Your task to perform on an android device: stop showing notifications on the lock screen Image 0: 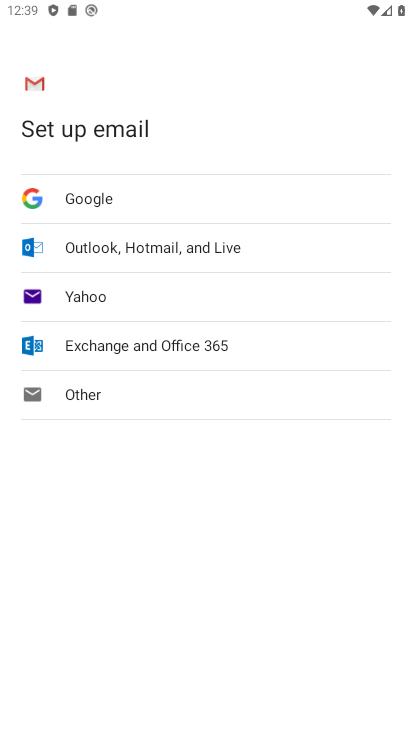
Step 0: press home button
Your task to perform on an android device: stop showing notifications on the lock screen Image 1: 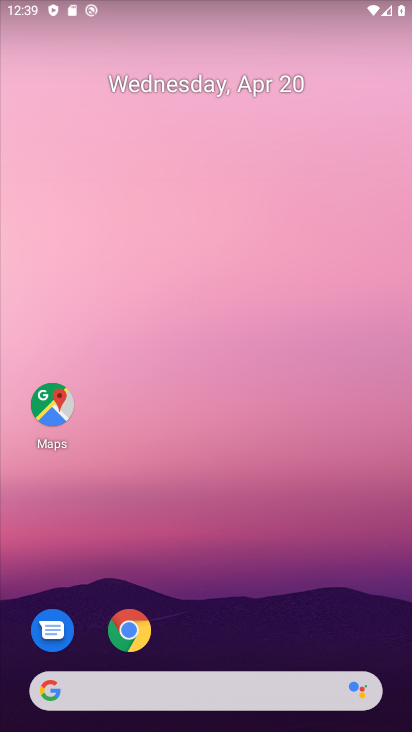
Step 1: drag from (362, 625) to (393, 236)
Your task to perform on an android device: stop showing notifications on the lock screen Image 2: 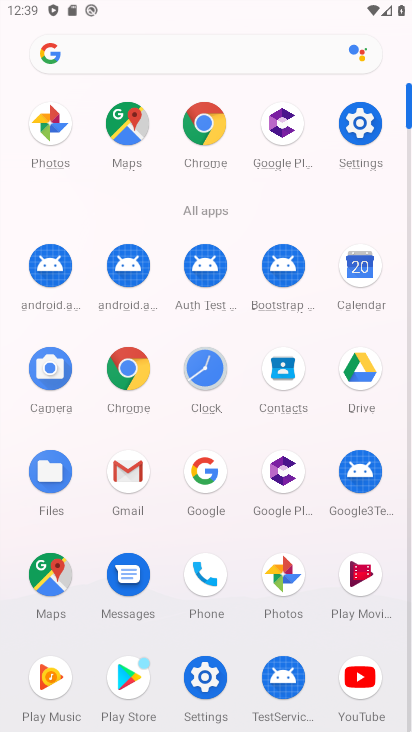
Step 2: click (378, 128)
Your task to perform on an android device: stop showing notifications on the lock screen Image 3: 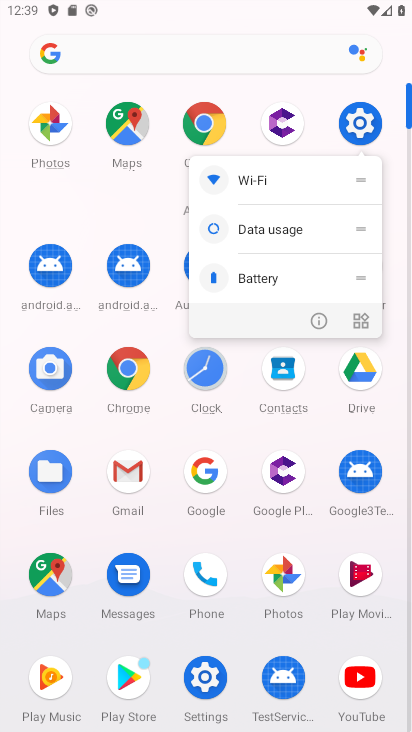
Step 3: click (372, 129)
Your task to perform on an android device: stop showing notifications on the lock screen Image 4: 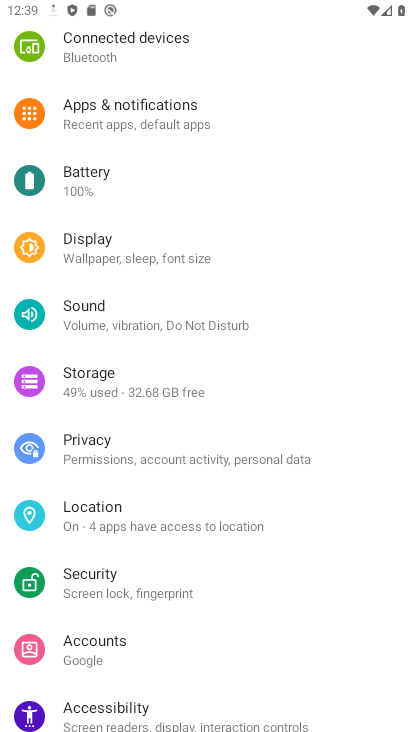
Step 4: drag from (179, 121) to (169, 382)
Your task to perform on an android device: stop showing notifications on the lock screen Image 5: 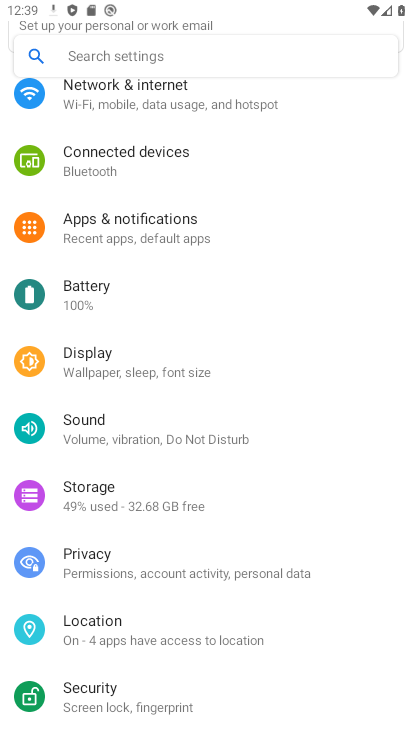
Step 5: click (152, 235)
Your task to perform on an android device: stop showing notifications on the lock screen Image 6: 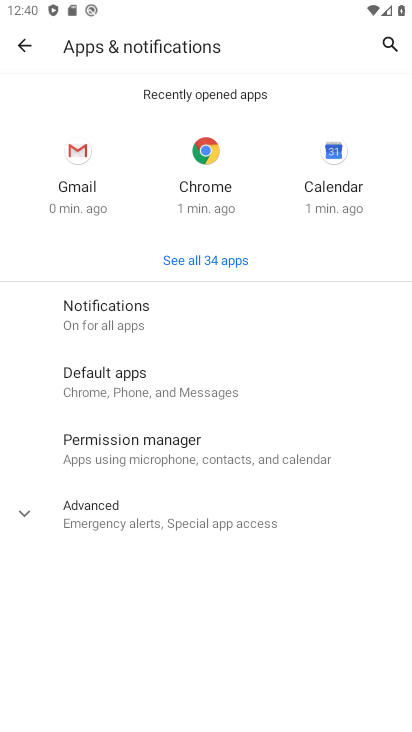
Step 6: click (144, 315)
Your task to perform on an android device: stop showing notifications on the lock screen Image 7: 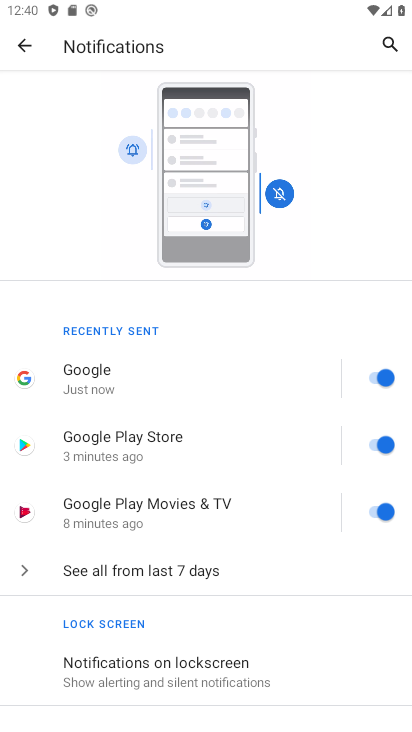
Step 7: click (231, 678)
Your task to perform on an android device: stop showing notifications on the lock screen Image 8: 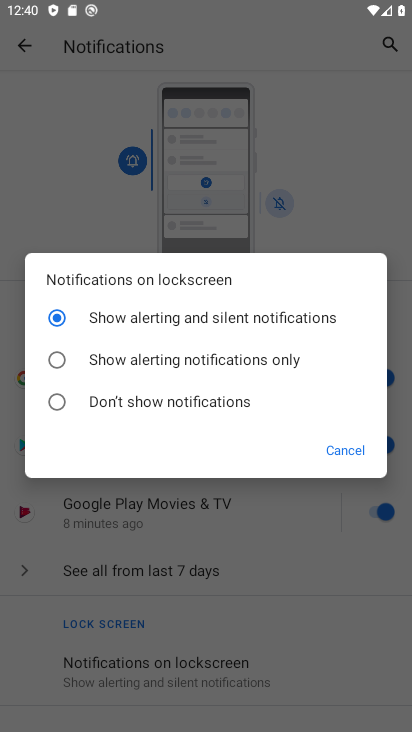
Step 8: click (140, 407)
Your task to perform on an android device: stop showing notifications on the lock screen Image 9: 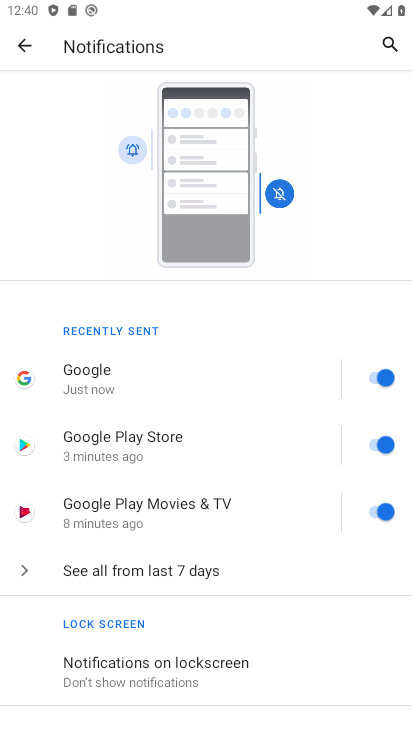
Step 9: task complete